Your task to perform on an android device: Open Google Chrome and open the bookmarks view Image 0: 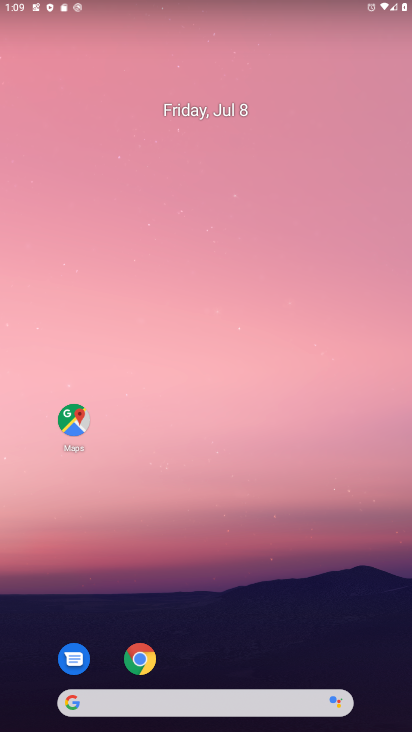
Step 0: click (137, 662)
Your task to perform on an android device: Open Google Chrome and open the bookmarks view Image 1: 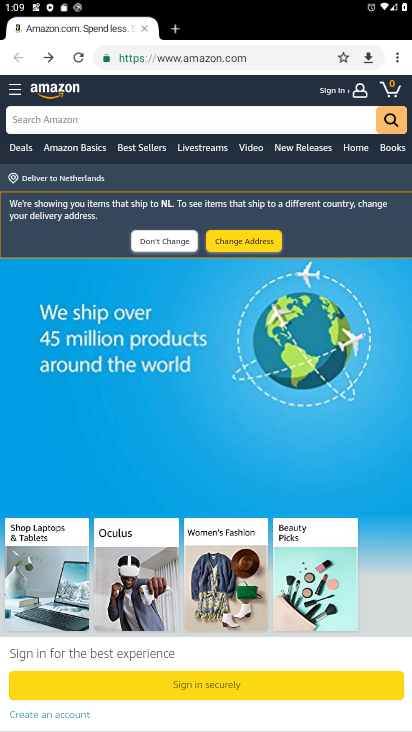
Step 1: click (392, 54)
Your task to perform on an android device: Open Google Chrome and open the bookmarks view Image 2: 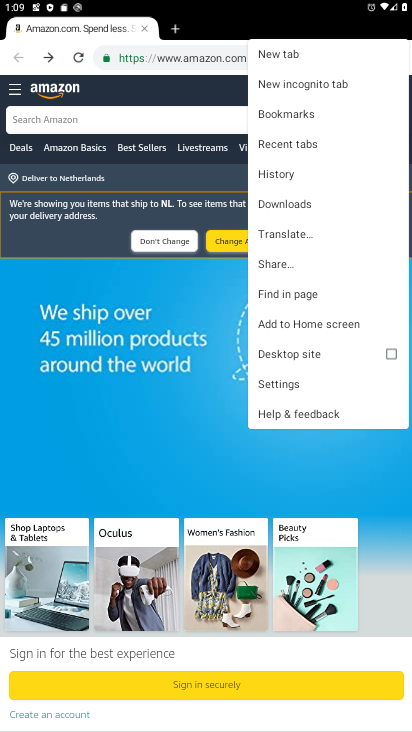
Step 2: click (283, 114)
Your task to perform on an android device: Open Google Chrome and open the bookmarks view Image 3: 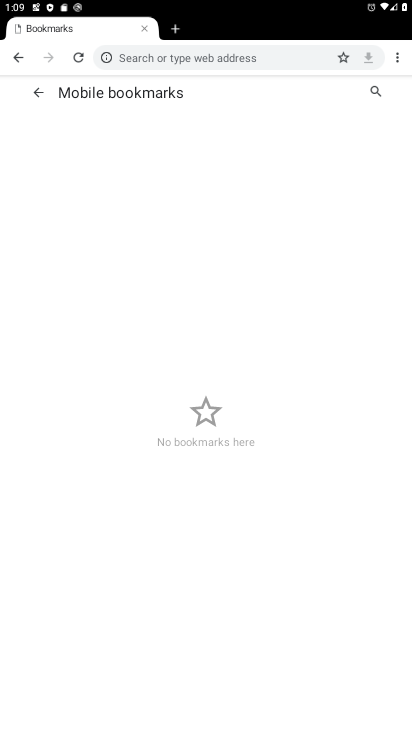
Step 3: task complete